Your task to perform on an android device: Go to CNN.com Image 0: 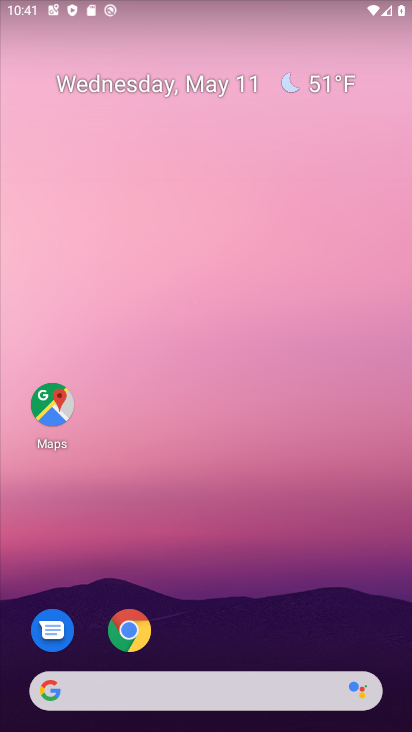
Step 0: click (128, 635)
Your task to perform on an android device: Go to CNN.com Image 1: 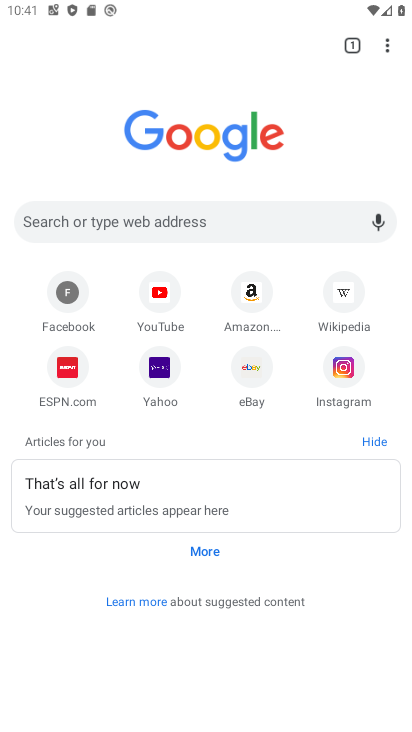
Step 1: click (203, 220)
Your task to perform on an android device: Go to CNN.com Image 2: 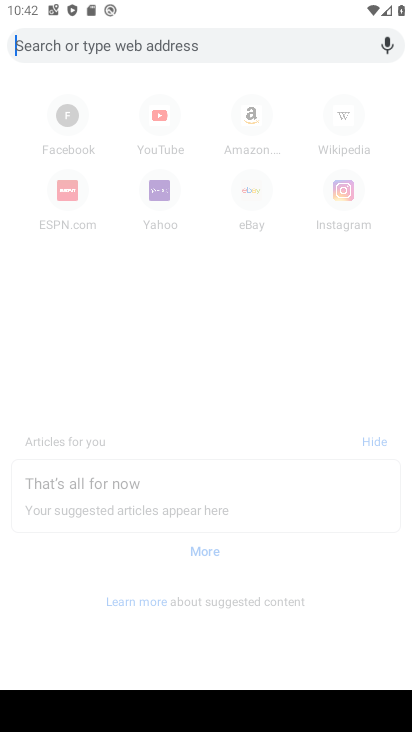
Step 2: type "CNN.com"
Your task to perform on an android device: Go to CNN.com Image 3: 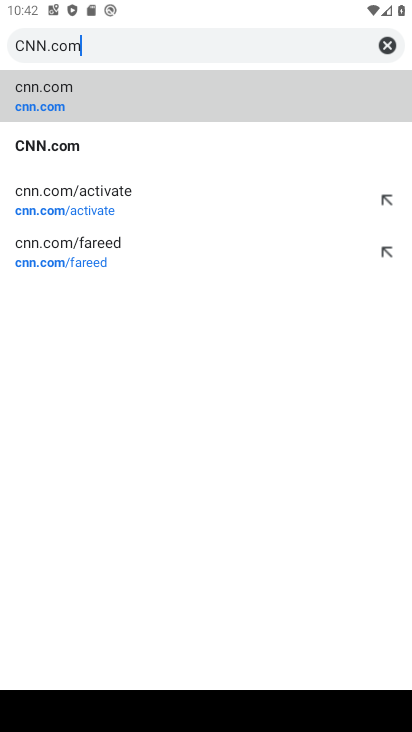
Step 3: click (74, 92)
Your task to perform on an android device: Go to CNN.com Image 4: 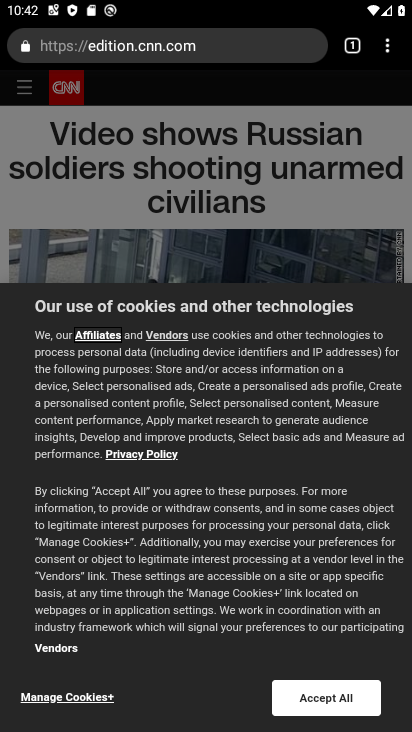
Step 4: task complete